Your task to perform on an android device: Open wifi settings Image 0: 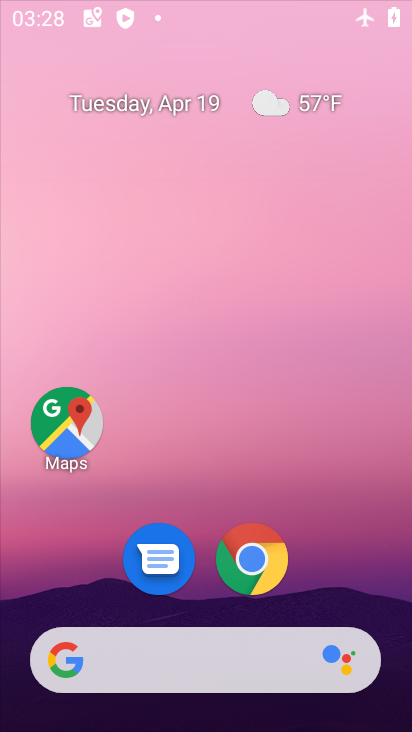
Step 0: click (225, 24)
Your task to perform on an android device: Open wifi settings Image 1: 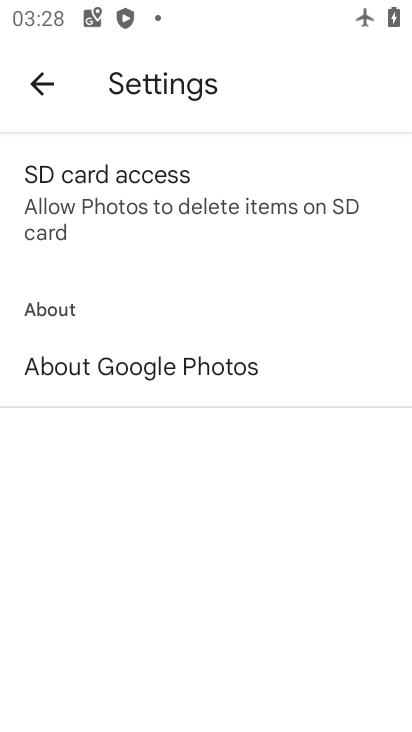
Step 1: press home button
Your task to perform on an android device: Open wifi settings Image 2: 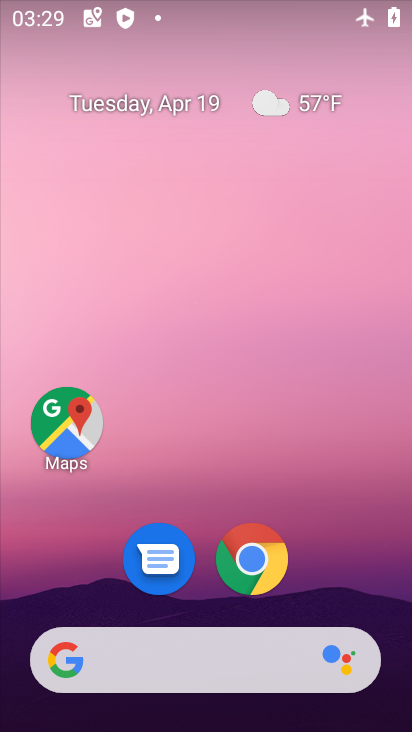
Step 2: drag from (207, 597) to (207, 61)
Your task to perform on an android device: Open wifi settings Image 3: 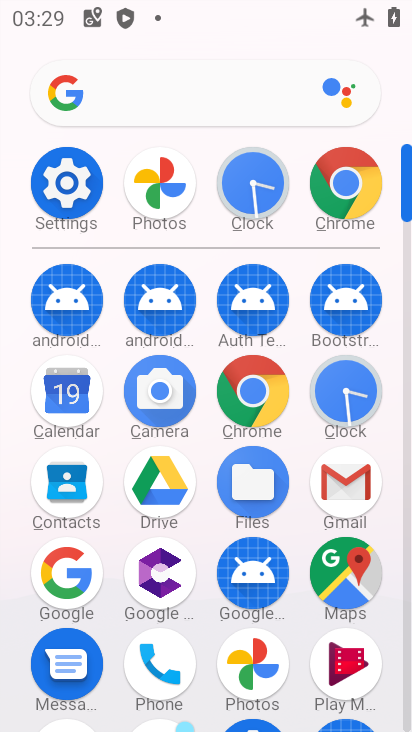
Step 3: click (62, 178)
Your task to perform on an android device: Open wifi settings Image 4: 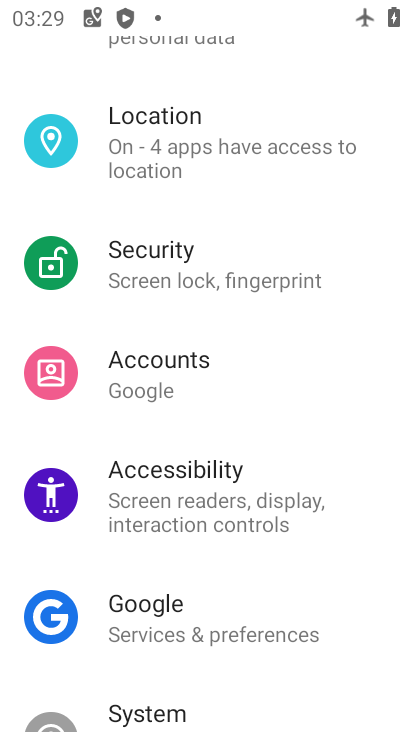
Step 4: drag from (230, 151) to (228, 680)
Your task to perform on an android device: Open wifi settings Image 5: 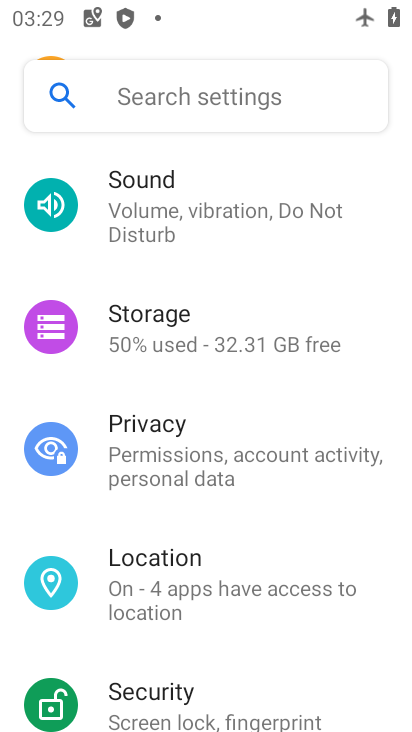
Step 5: drag from (203, 175) to (205, 731)
Your task to perform on an android device: Open wifi settings Image 6: 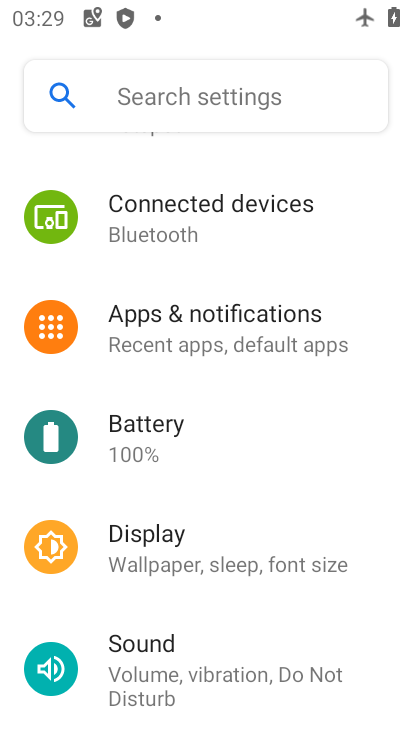
Step 6: drag from (229, 229) to (223, 702)
Your task to perform on an android device: Open wifi settings Image 7: 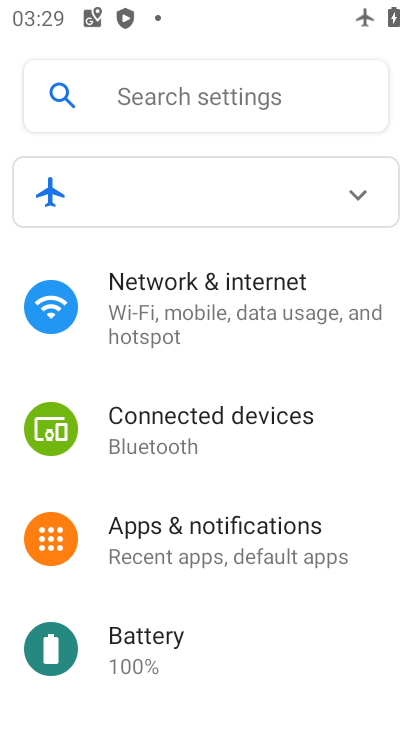
Step 7: click (213, 309)
Your task to perform on an android device: Open wifi settings Image 8: 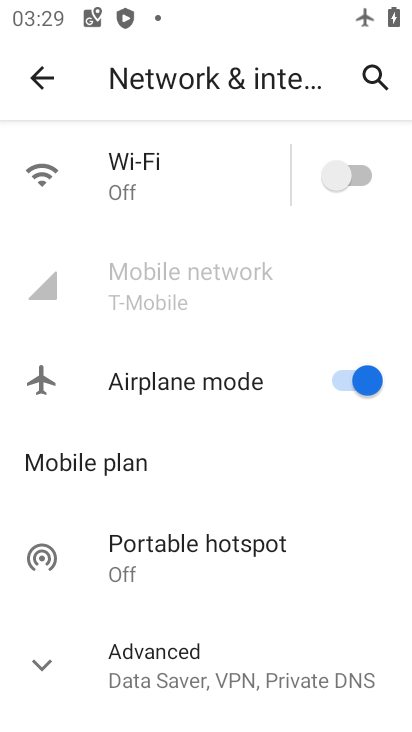
Step 8: click (353, 176)
Your task to perform on an android device: Open wifi settings Image 9: 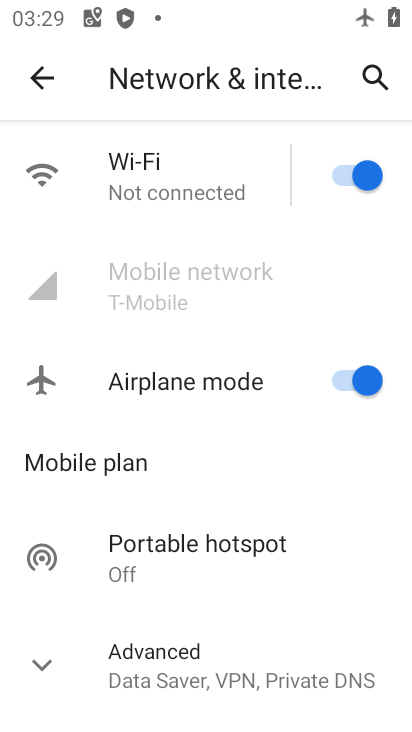
Step 9: task complete